Your task to perform on an android device: remove spam from my inbox in the gmail app Image 0: 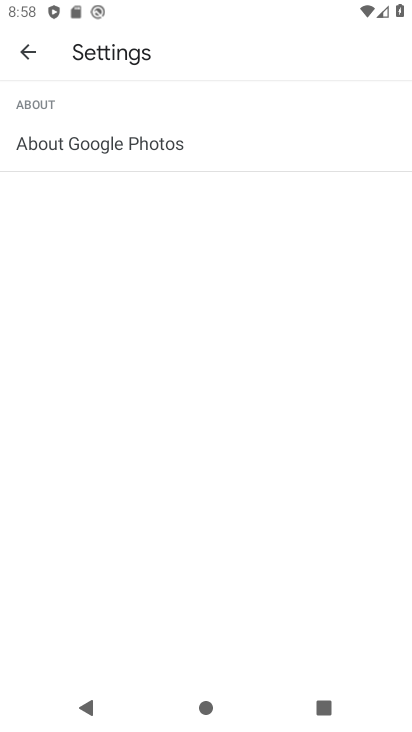
Step 0: press home button
Your task to perform on an android device: remove spam from my inbox in the gmail app Image 1: 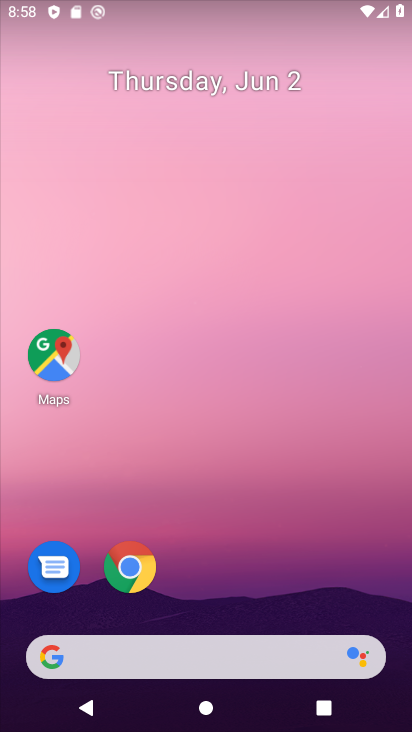
Step 1: drag from (329, 581) to (347, 91)
Your task to perform on an android device: remove spam from my inbox in the gmail app Image 2: 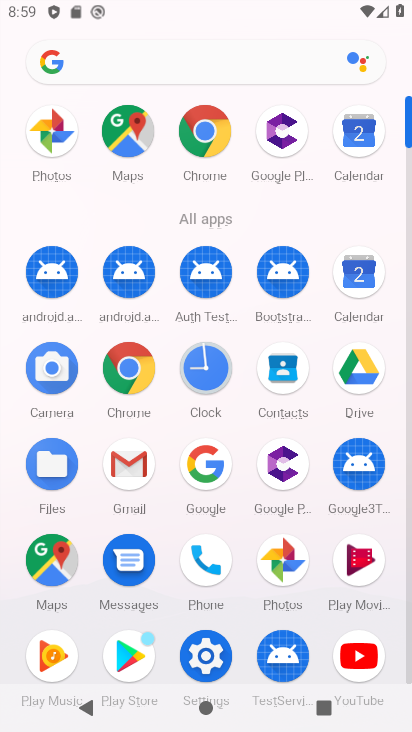
Step 2: click (144, 479)
Your task to perform on an android device: remove spam from my inbox in the gmail app Image 3: 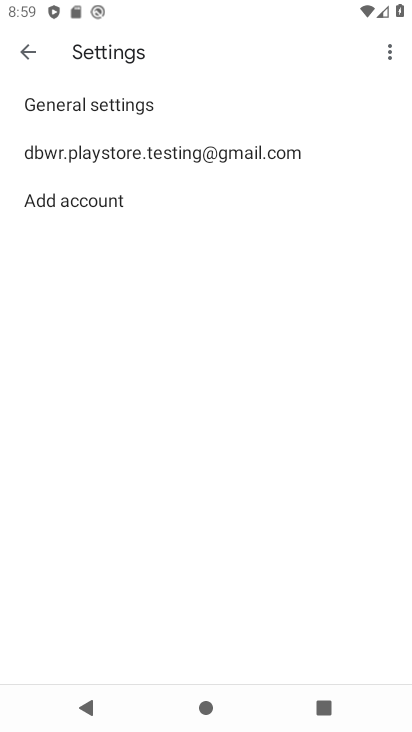
Step 3: click (248, 148)
Your task to perform on an android device: remove spam from my inbox in the gmail app Image 4: 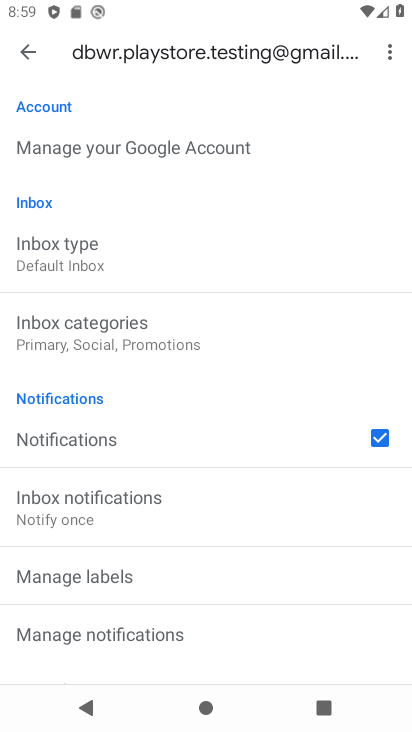
Step 4: click (29, 58)
Your task to perform on an android device: remove spam from my inbox in the gmail app Image 5: 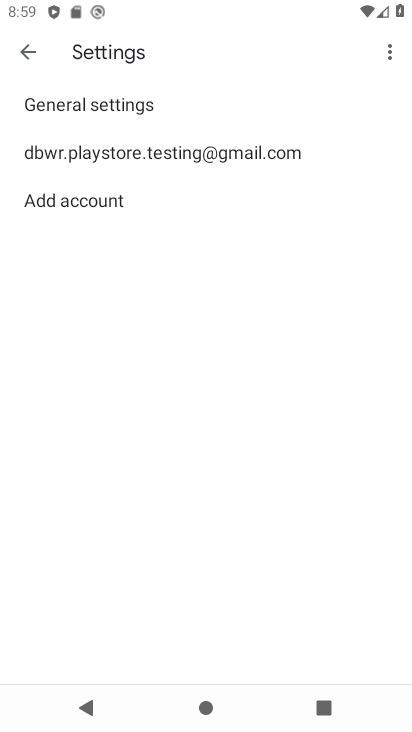
Step 5: click (29, 58)
Your task to perform on an android device: remove spam from my inbox in the gmail app Image 6: 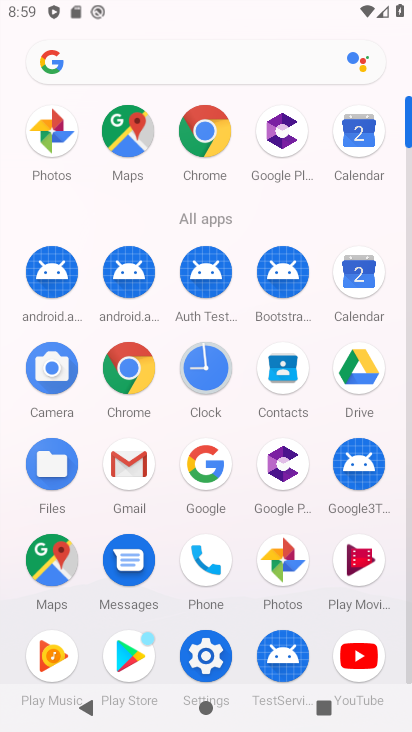
Step 6: click (130, 456)
Your task to perform on an android device: remove spam from my inbox in the gmail app Image 7: 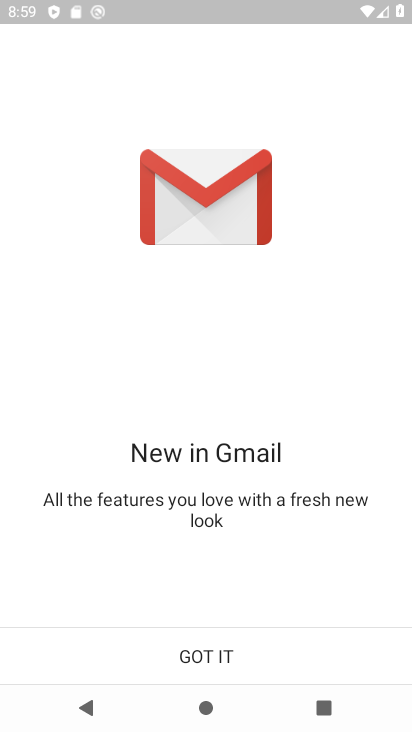
Step 7: click (242, 650)
Your task to perform on an android device: remove spam from my inbox in the gmail app Image 8: 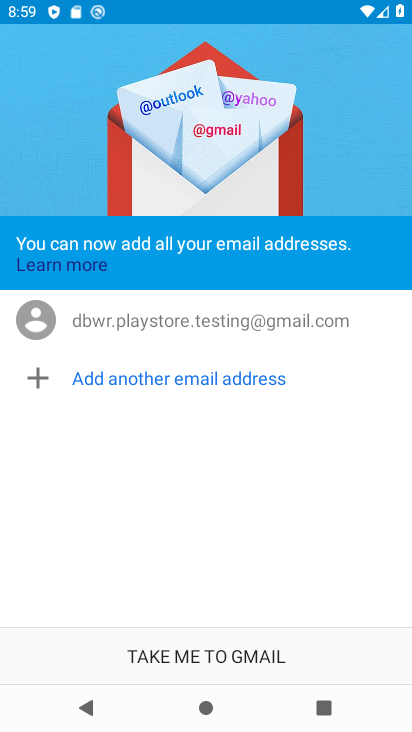
Step 8: click (245, 646)
Your task to perform on an android device: remove spam from my inbox in the gmail app Image 9: 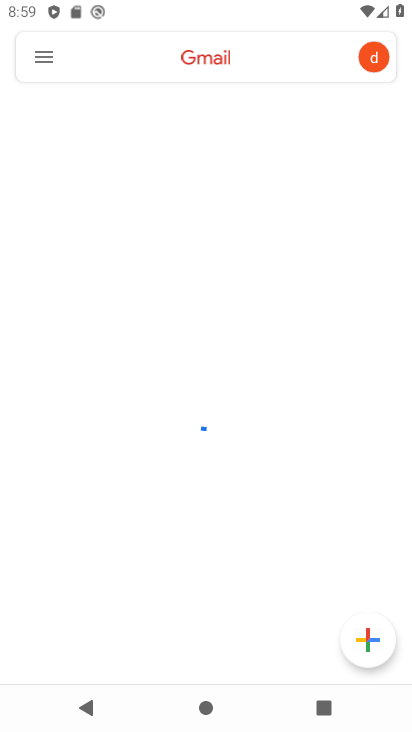
Step 9: click (43, 56)
Your task to perform on an android device: remove spam from my inbox in the gmail app Image 10: 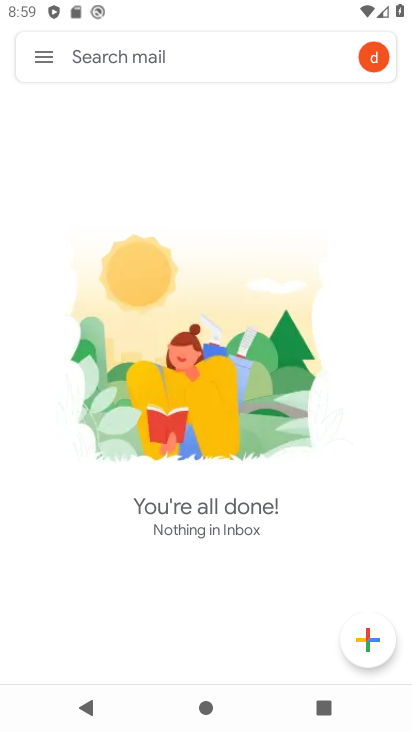
Step 10: click (44, 55)
Your task to perform on an android device: remove spam from my inbox in the gmail app Image 11: 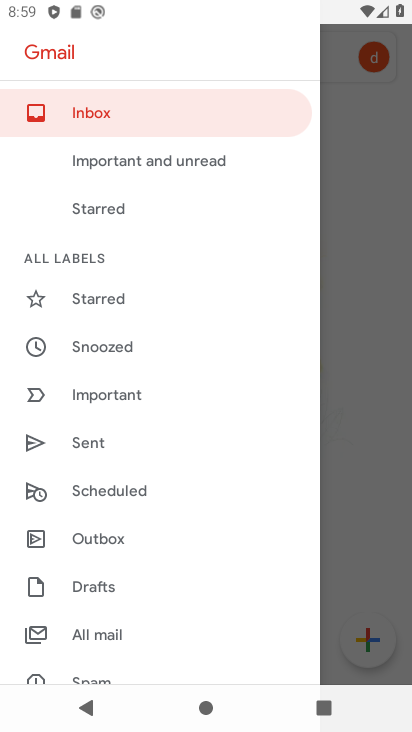
Step 11: drag from (167, 622) to (195, 231)
Your task to perform on an android device: remove spam from my inbox in the gmail app Image 12: 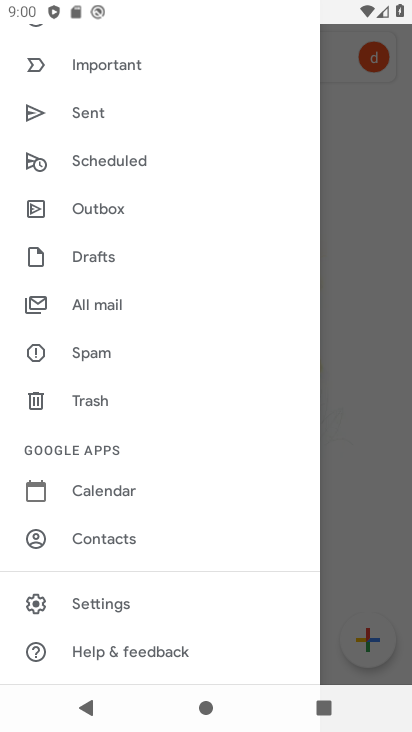
Step 12: click (139, 348)
Your task to perform on an android device: remove spam from my inbox in the gmail app Image 13: 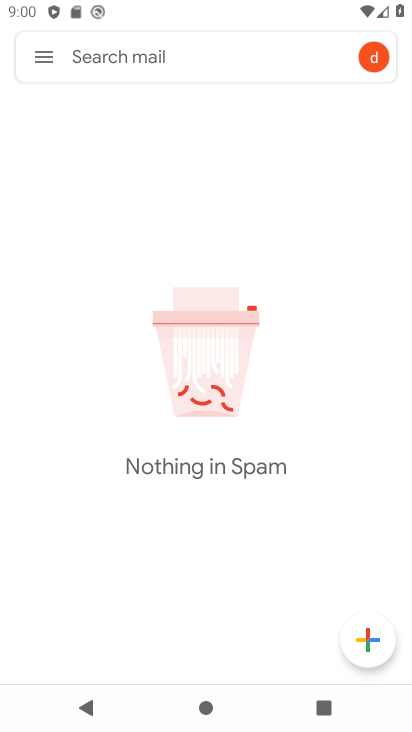
Step 13: task complete